Your task to perform on an android device: turn off priority inbox in the gmail app Image 0: 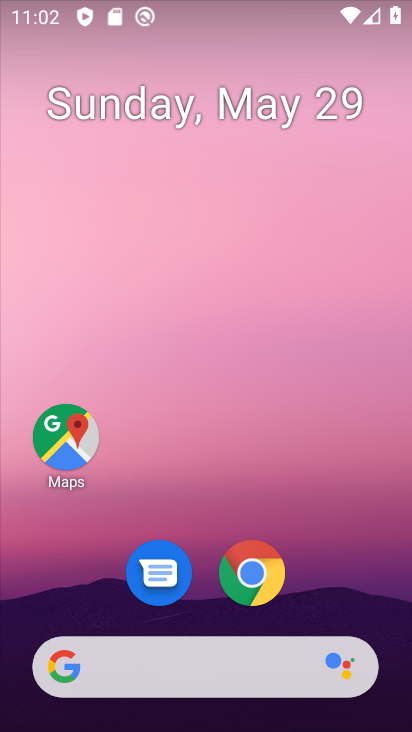
Step 0: drag from (342, 437) to (297, 127)
Your task to perform on an android device: turn off priority inbox in the gmail app Image 1: 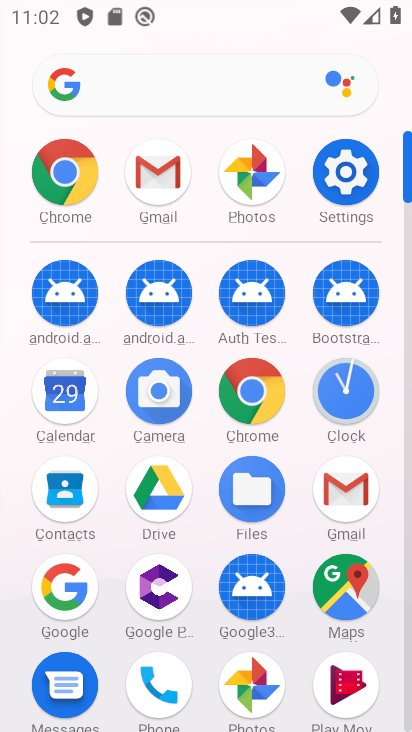
Step 1: click (155, 165)
Your task to perform on an android device: turn off priority inbox in the gmail app Image 2: 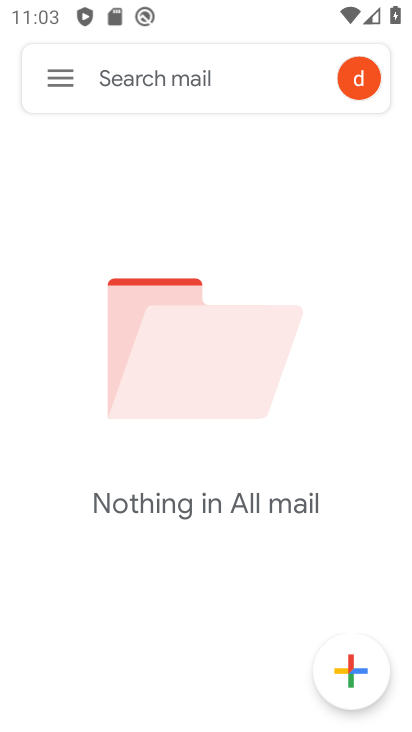
Step 2: click (57, 72)
Your task to perform on an android device: turn off priority inbox in the gmail app Image 3: 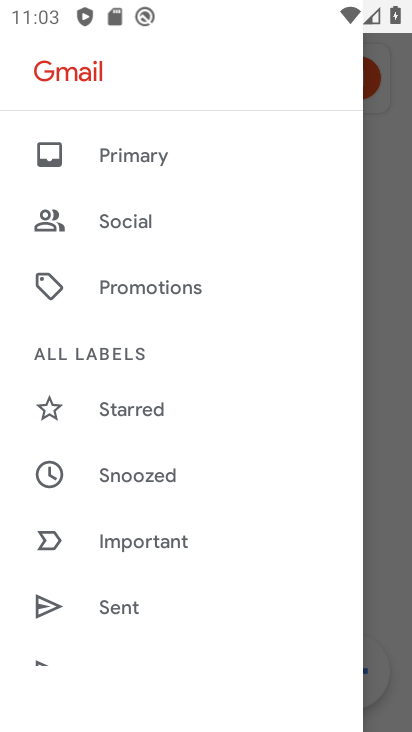
Step 3: drag from (227, 598) to (173, 170)
Your task to perform on an android device: turn off priority inbox in the gmail app Image 4: 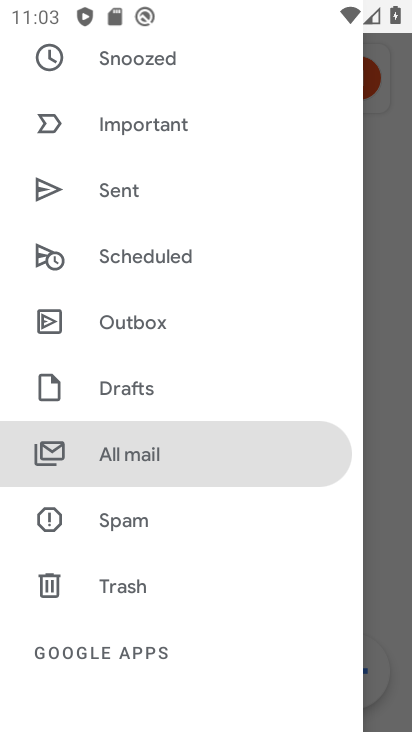
Step 4: drag from (261, 654) to (200, 250)
Your task to perform on an android device: turn off priority inbox in the gmail app Image 5: 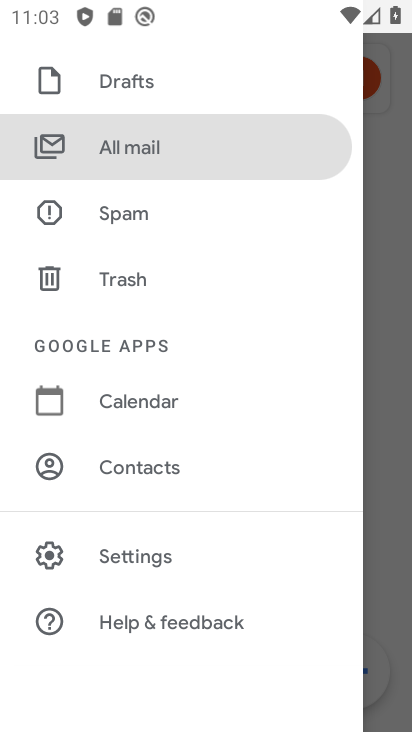
Step 5: click (151, 556)
Your task to perform on an android device: turn off priority inbox in the gmail app Image 6: 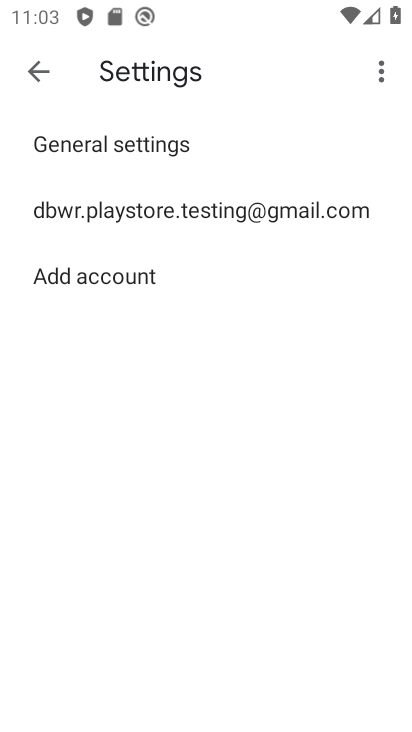
Step 6: click (88, 205)
Your task to perform on an android device: turn off priority inbox in the gmail app Image 7: 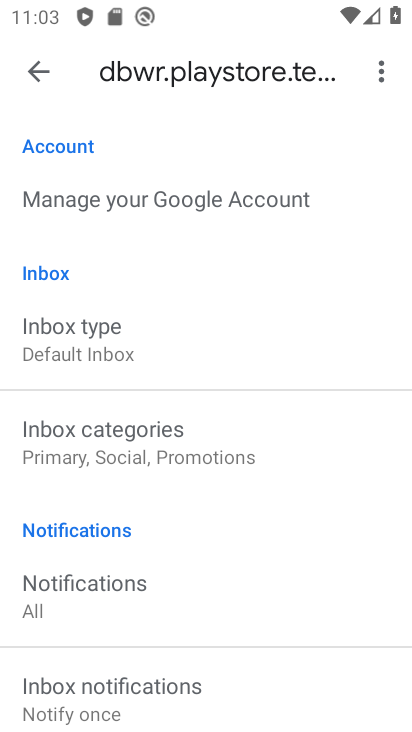
Step 7: click (70, 345)
Your task to perform on an android device: turn off priority inbox in the gmail app Image 8: 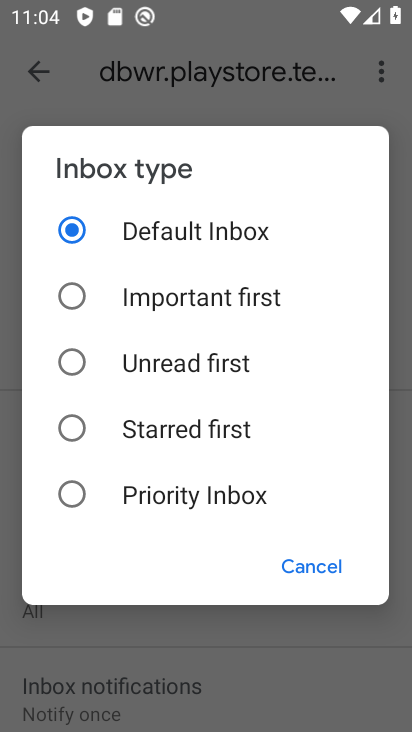
Step 8: task complete